Your task to perform on an android device: What's the weather today? Image 0: 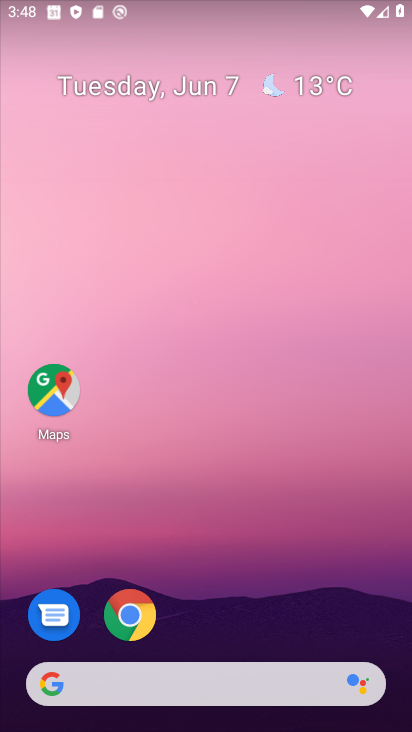
Step 0: drag from (229, 683) to (254, 128)
Your task to perform on an android device: What's the weather today? Image 1: 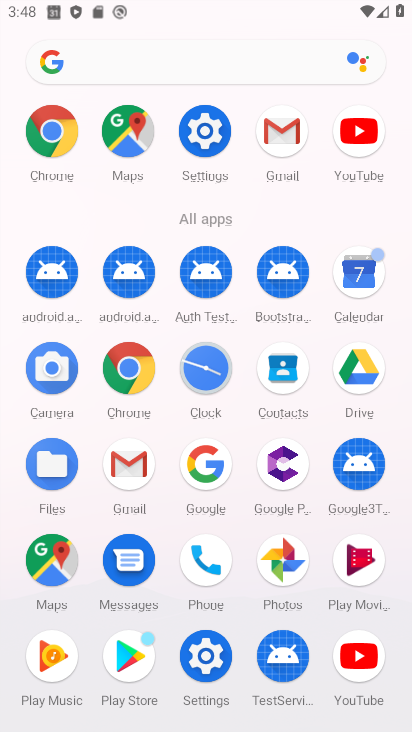
Step 1: task complete